Your task to perform on an android device: Go to Reddit.com Image 0: 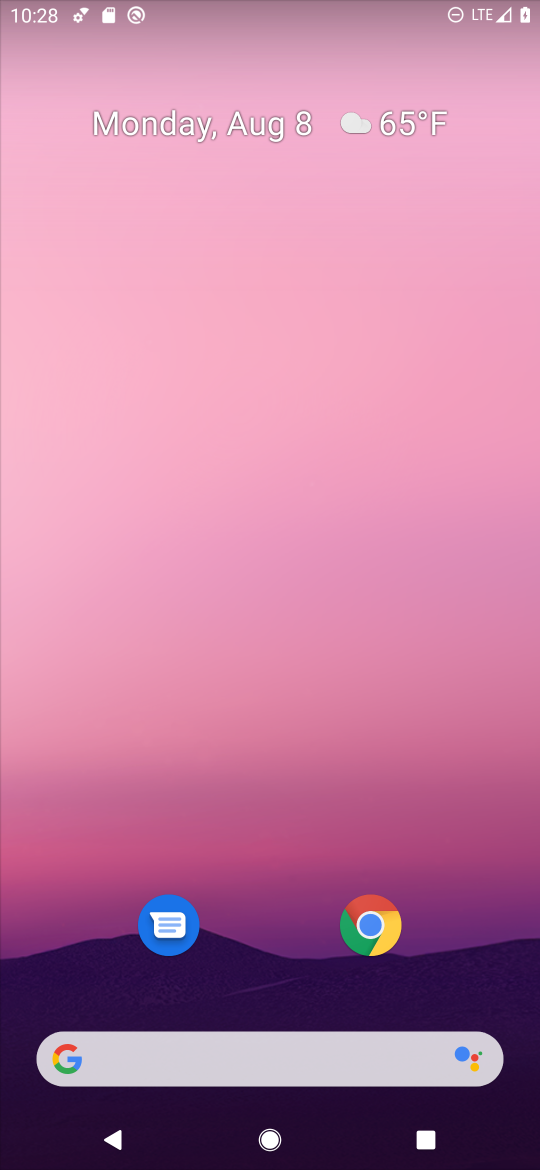
Step 0: drag from (236, 859) to (241, 171)
Your task to perform on an android device: Go to Reddit.com Image 1: 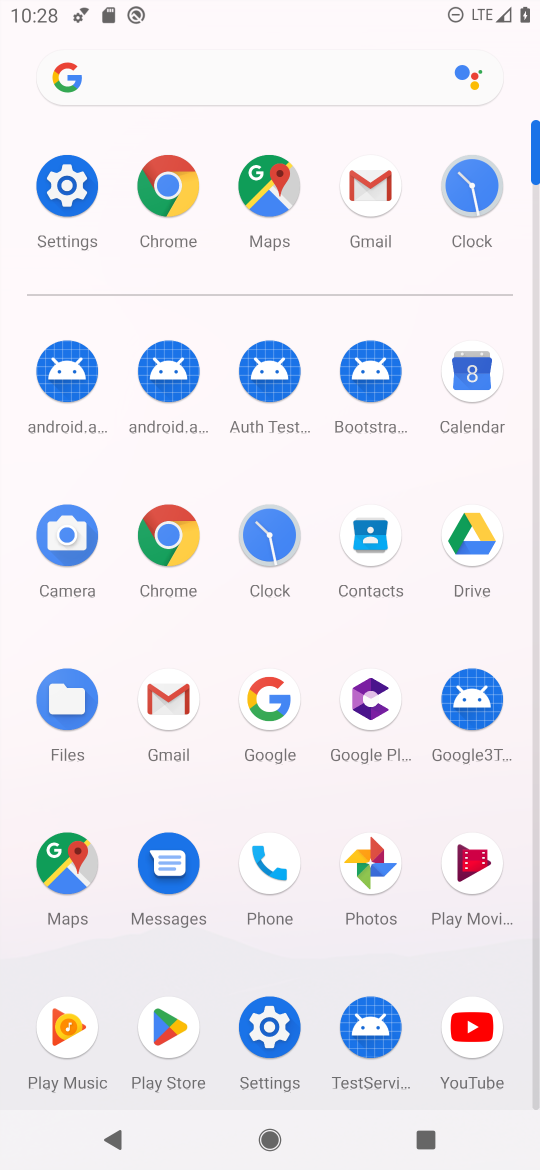
Step 1: click (174, 536)
Your task to perform on an android device: Go to Reddit.com Image 2: 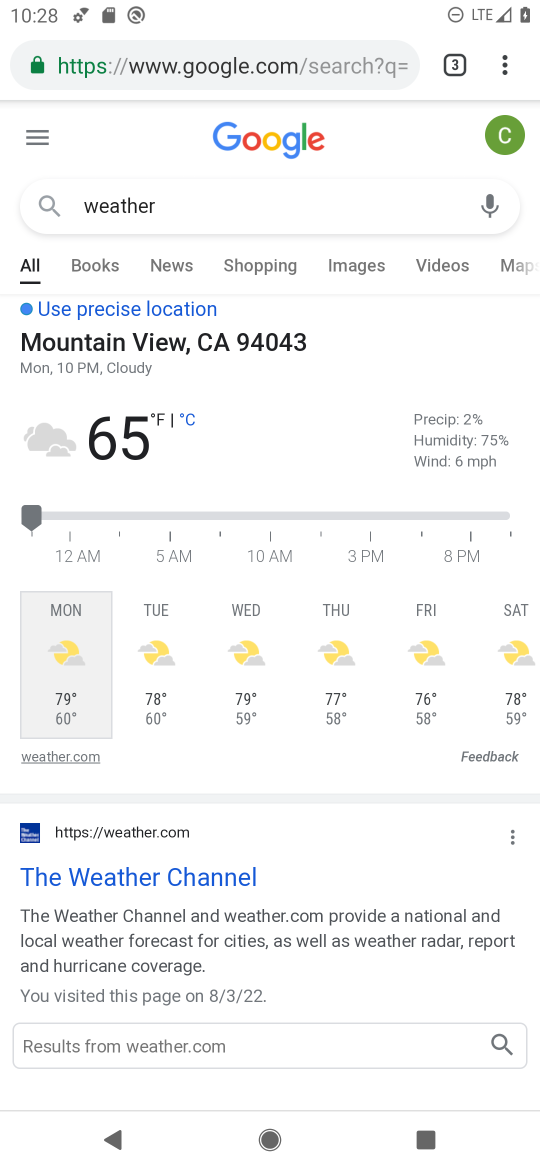
Step 2: click (255, 73)
Your task to perform on an android device: Go to Reddit.com Image 3: 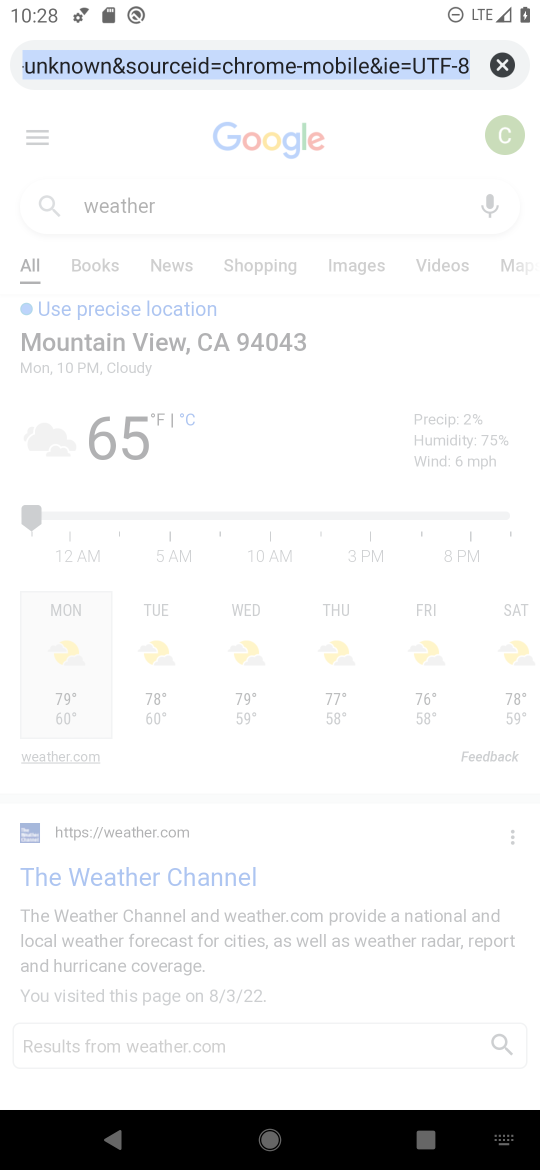
Step 3: type "Reddit.com"
Your task to perform on an android device: Go to Reddit.com Image 4: 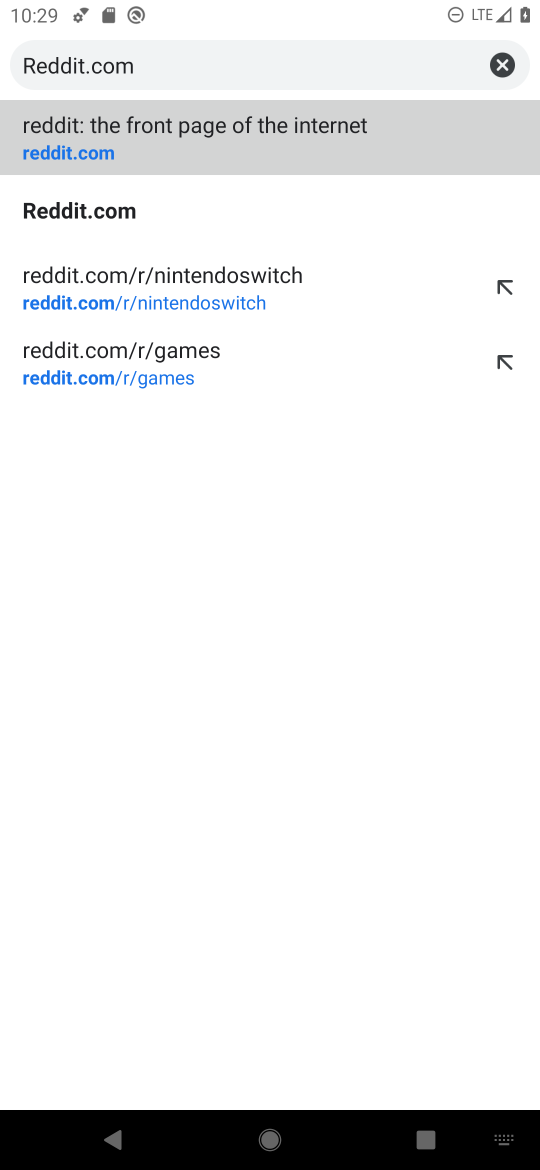
Step 4: click (125, 160)
Your task to perform on an android device: Go to Reddit.com Image 5: 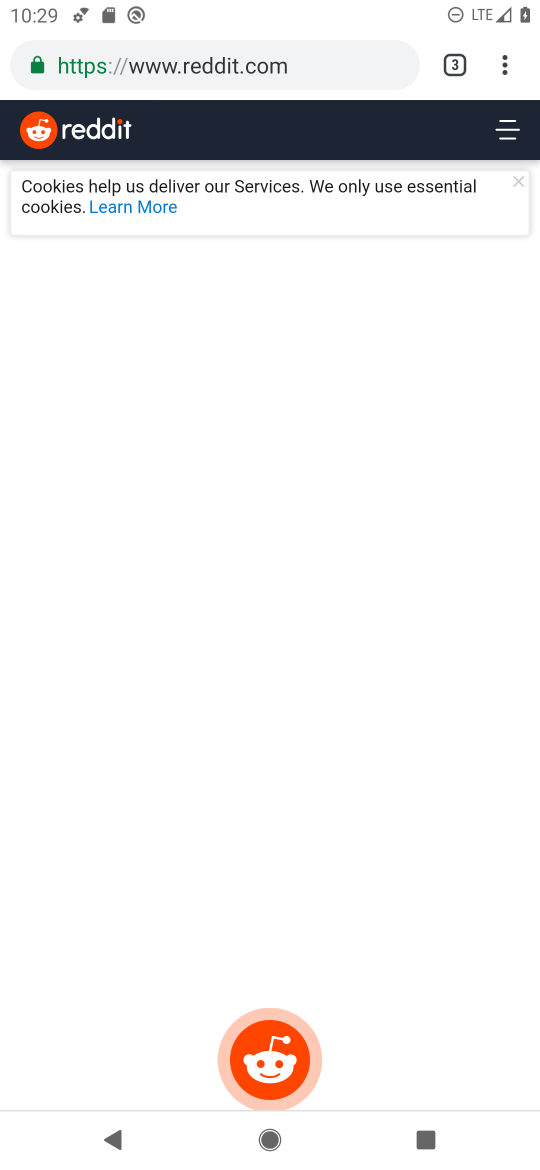
Step 5: task complete